Your task to perform on an android device: toggle location history Image 0: 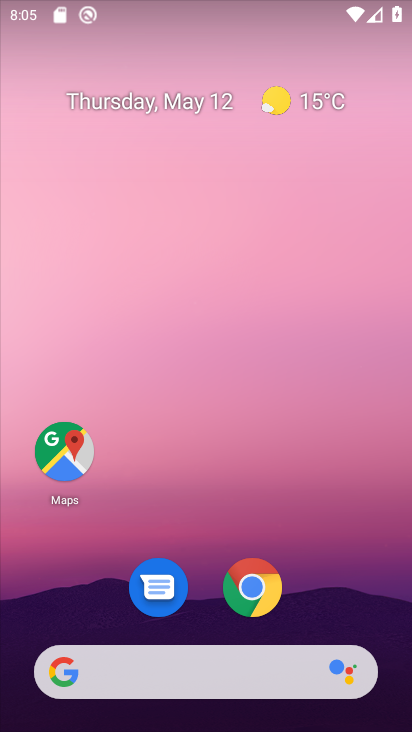
Step 0: drag from (378, 608) to (379, 516)
Your task to perform on an android device: toggle location history Image 1: 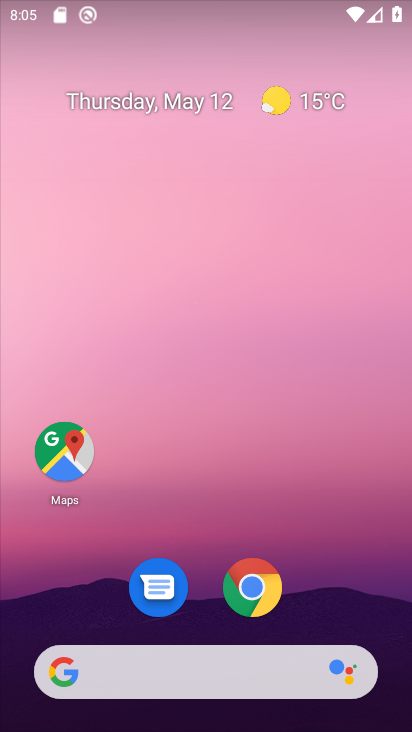
Step 1: click (233, 151)
Your task to perform on an android device: toggle location history Image 2: 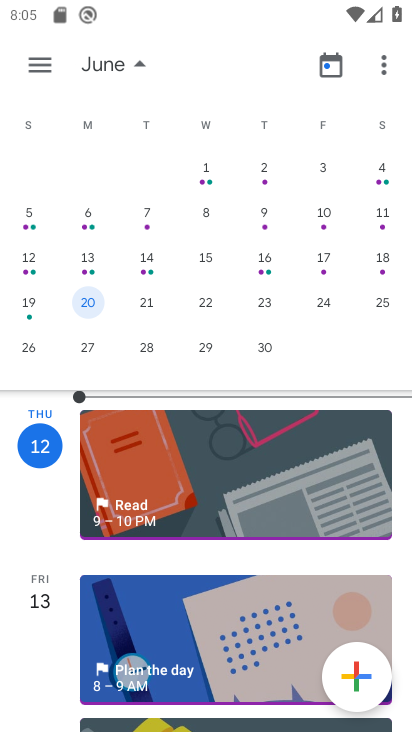
Step 2: drag from (339, 566) to (406, 427)
Your task to perform on an android device: toggle location history Image 3: 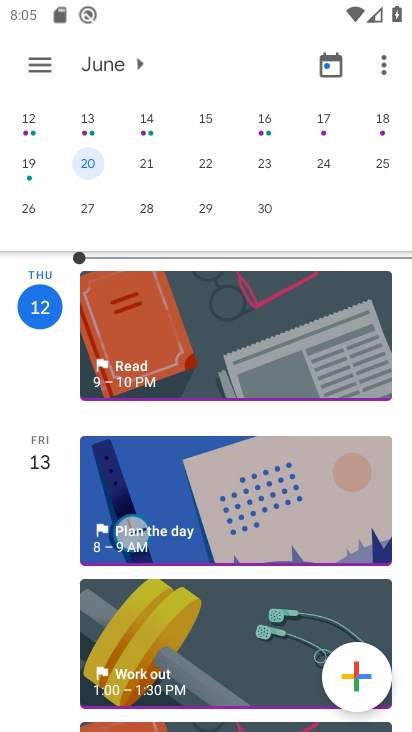
Step 3: press home button
Your task to perform on an android device: toggle location history Image 4: 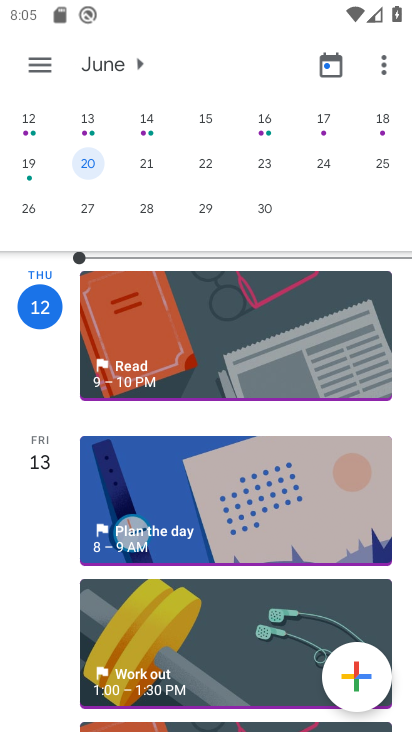
Step 4: click (376, 466)
Your task to perform on an android device: toggle location history Image 5: 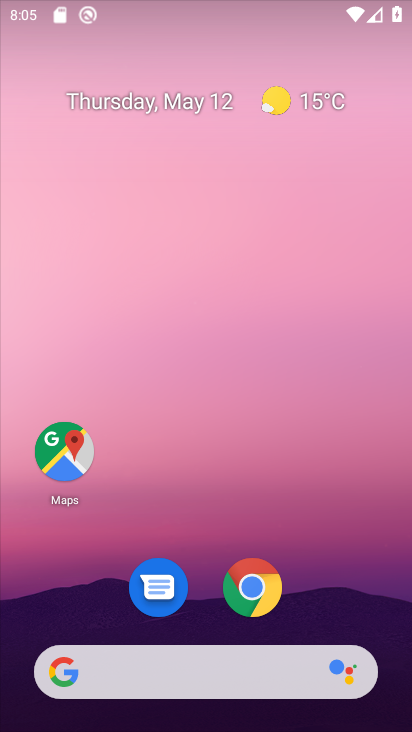
Step 5: drag from (364, 603) to (282, 8)
Your task to perform on an android device: toggle location history Image 6: 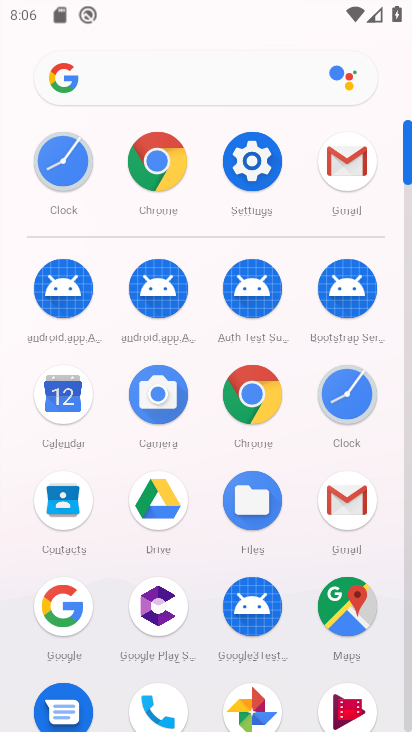
Step 6: click (259, 174)
Your task to perform on an android device: toggle location history Image 7: 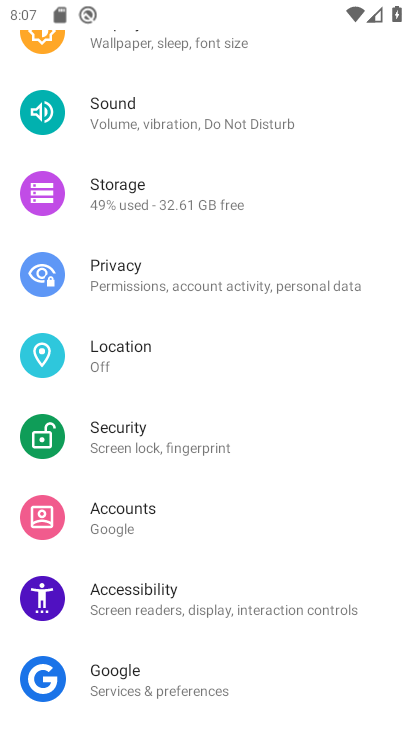
Step 7: click (111, 374)
Your task to perform on an android device: toggle location history Image 8: 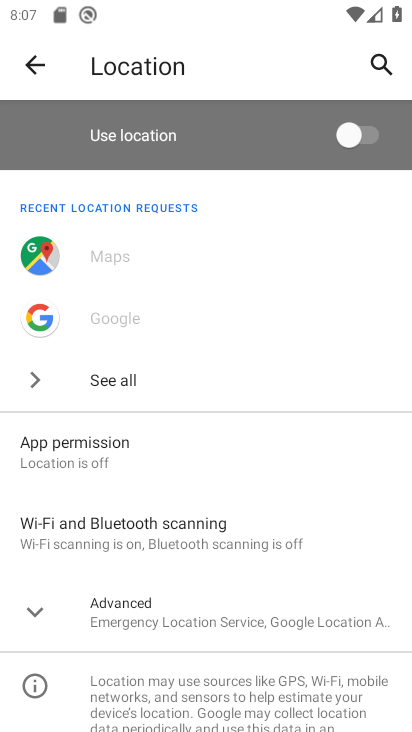
Step 8: click (199, 605)
Your task to perform on an android device: toggle location history Image 9: 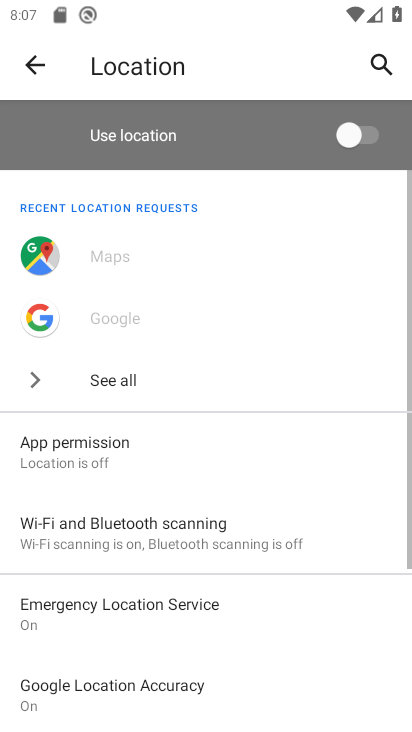
Step 9: drag from (198, 605) to (206, 352)
Your task to perform on an android device: toggle location history Image 10: 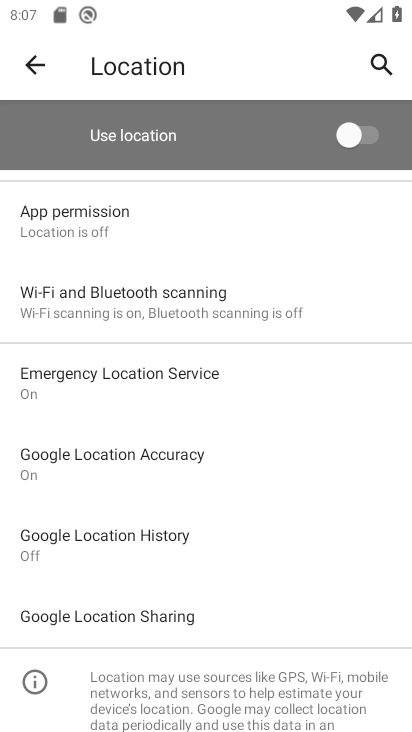
Step 10: click (153, 530)
Your task to perform on an android device: toggle location history Image 11: 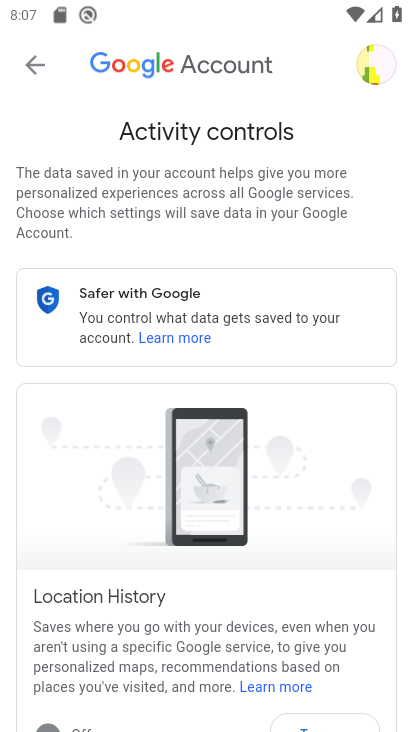
Step 11: drag from (297, 569) to (248, 76)
Your task to perform on an android device: toggle location history Image 12: 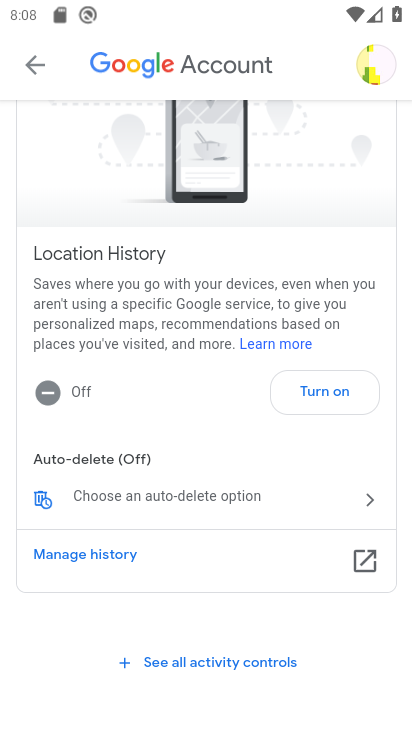
Step 12: click (338, 396)
Your task to perform on an android device: toggle location history Image 13: 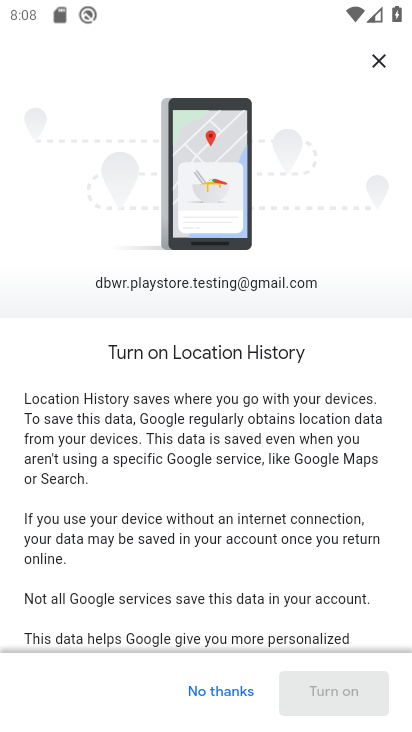
Step 13: task complete